Your task to perform on an android device: toggle data saver in the chrome app Image 0: 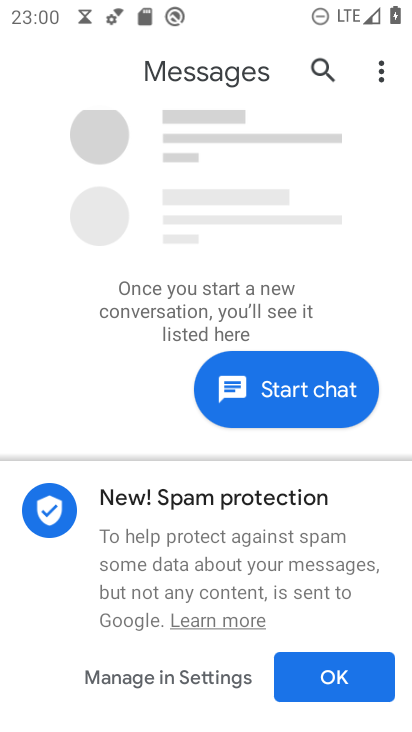
Step 0: press home button
Your task to perform on an android device: toggle data saver in the chrome app Image 1: 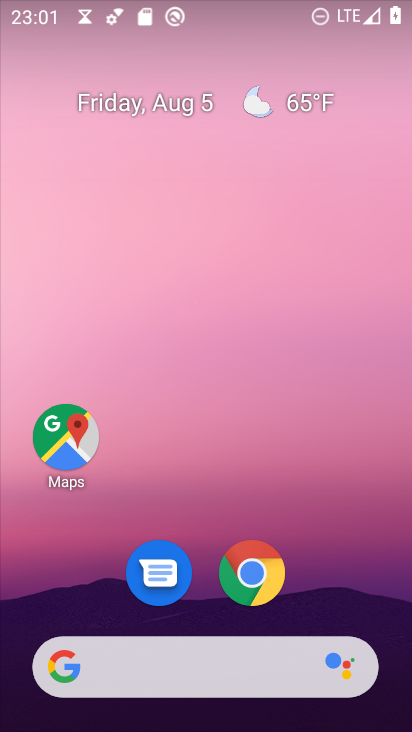
Step 1: click (256, 574)
Your task to perform on an android device: toggle data saver in the chrome app Image 2: 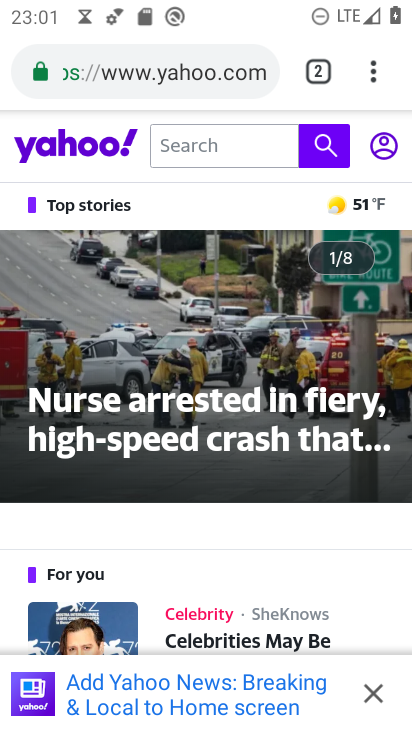
Step 2: click (375, 72)
Your task to perform on an android device: toggle data saver in the chrome app Image 3: 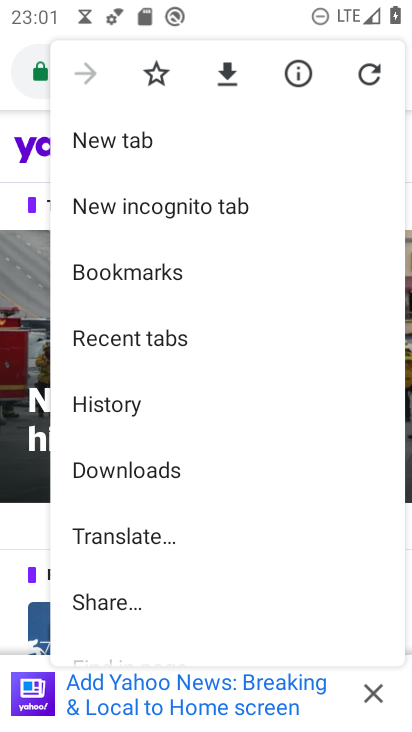
Step 3: drag from (177, 482) to (255, 381)
Your task to perform on an android device: toggle data saver in the chrome app Image 4: 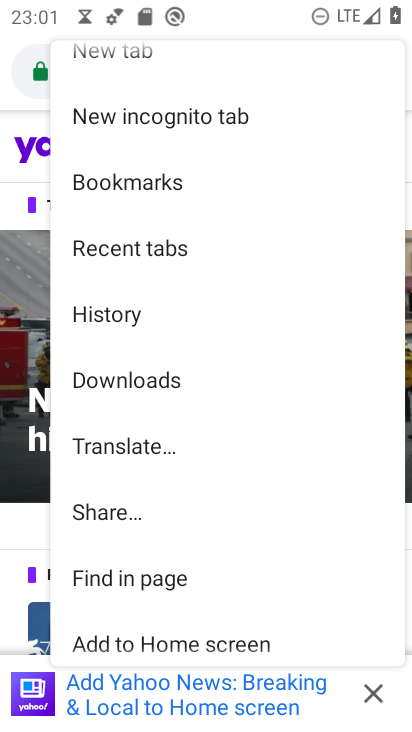
Step 4: drag from (175, 487) to (233, 404)
Your task to perform on an android device: toggle data saver in the chrome app Image 5: 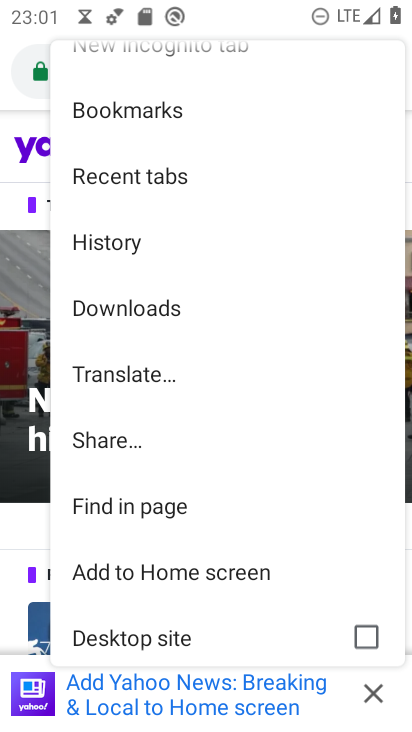
Step 5: drag from (156, 530) to (232, 401)
Your task to perform on an android device: toggle data saver in the chrome app Image 6: 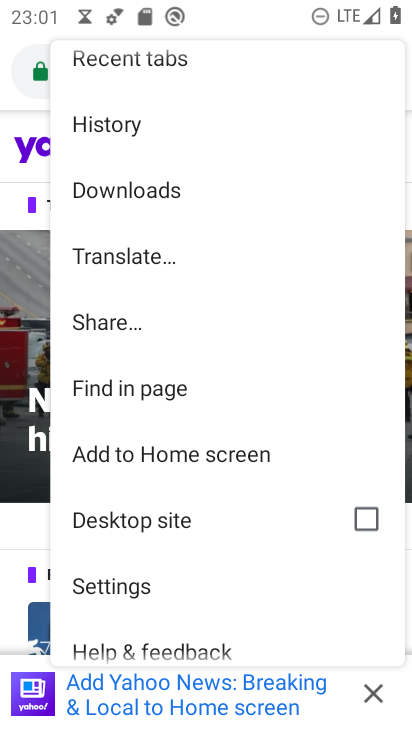
Step 6: drag from (175, 553) to (260, 438)
Your task to perform on an android device: toggle data saver in the chrome app Image 7: 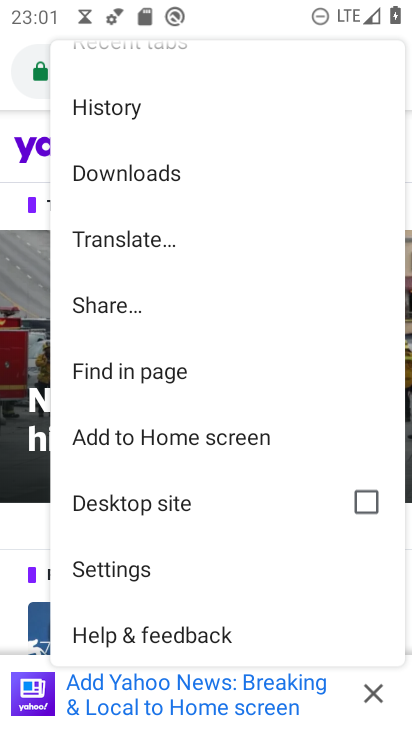
Step 7: drag from (223, 333) to (199, 504)
Your task to perform on an android device: toggle data saver in the chrome app Image 8: 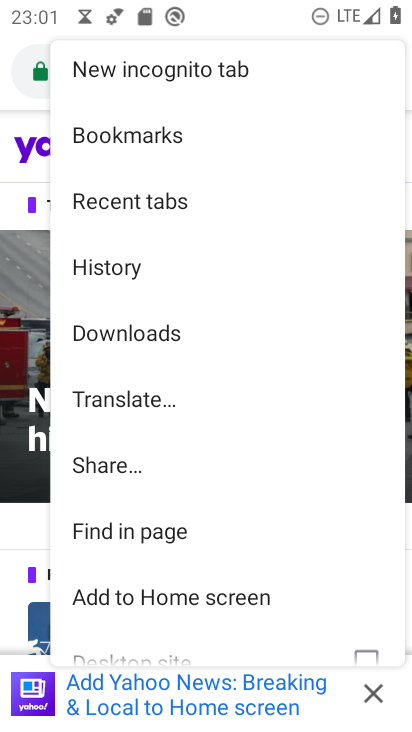
Step 8: drag from (226, 298) to (202, 423)
Your task to perform on an android device: toggle data saver in the chrome app Image 9: 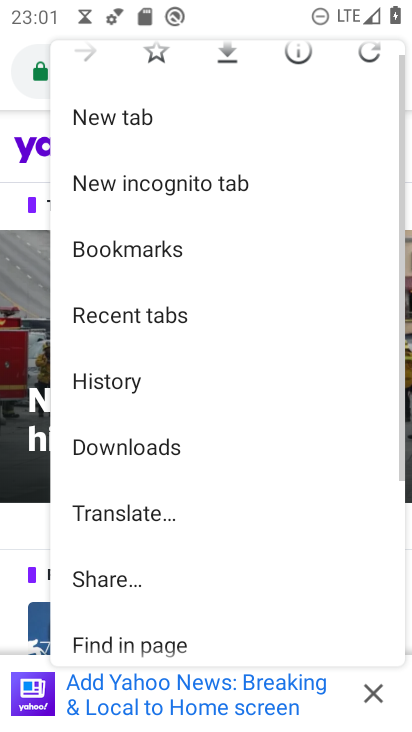
Step 9: drag from (171, 597) to (267, 311)
Your task to perform on an android device: toggle data saver in the chrome app Image 10: 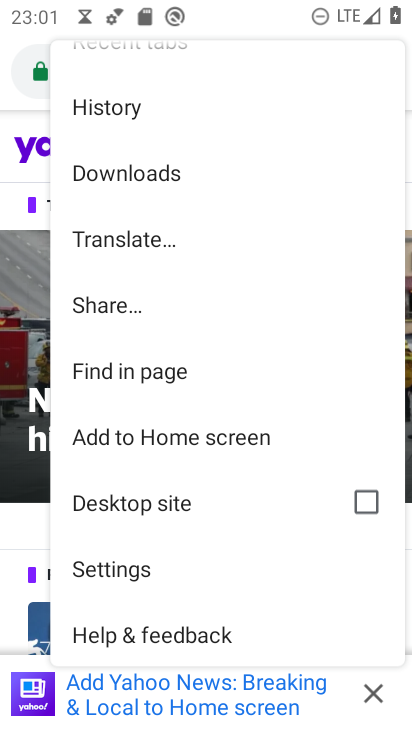
Step 10: click (130, 574)
Your task to perform on an android device: toggle data saver in the chrome app Image 11: 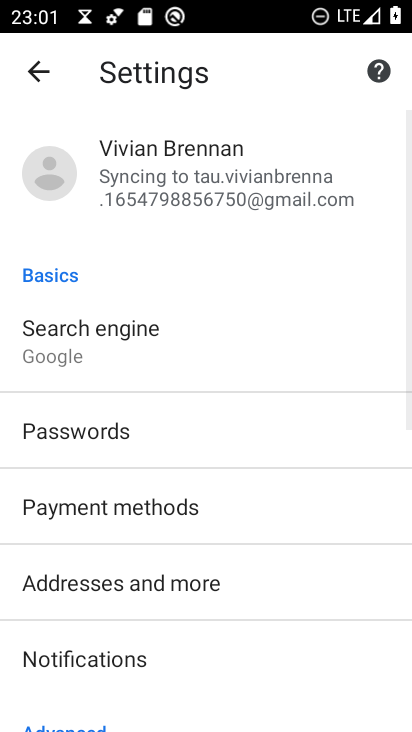
Step 11: drag from (145, 588) to (289, 399)
Your task to perform on an android device: toggle data saver in the chrome app Image 12: 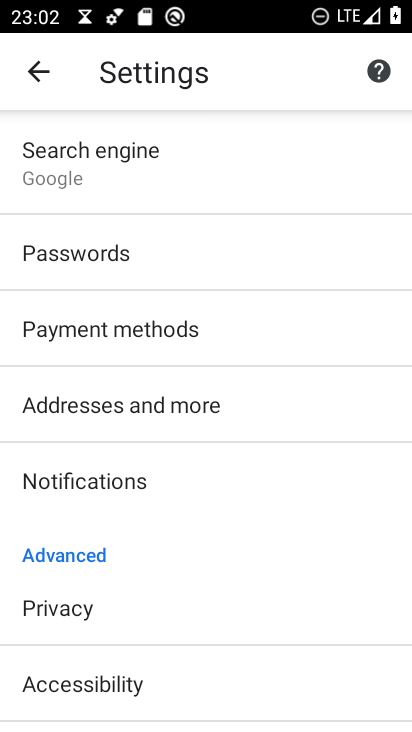
Step 12: drag from (178, 604) to (305, 424)
Your task to perform on an android device: toggle data saver in the chrome app Image 13: 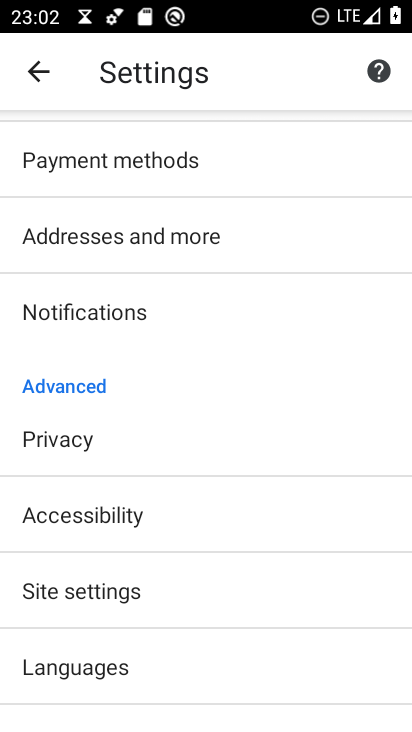
Step 13: drag from (160, 614) to (245, 526)
Your task to perform on an android device: toggle data saver in the chrome app Image 14: 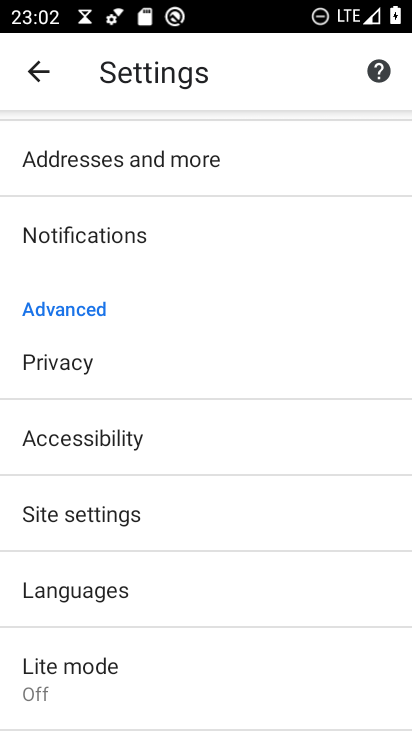
Step 14: drag from (96, 610) to (193, 499)
Your task to perform on an android device: toggle data saver in the chrome app Image 15: 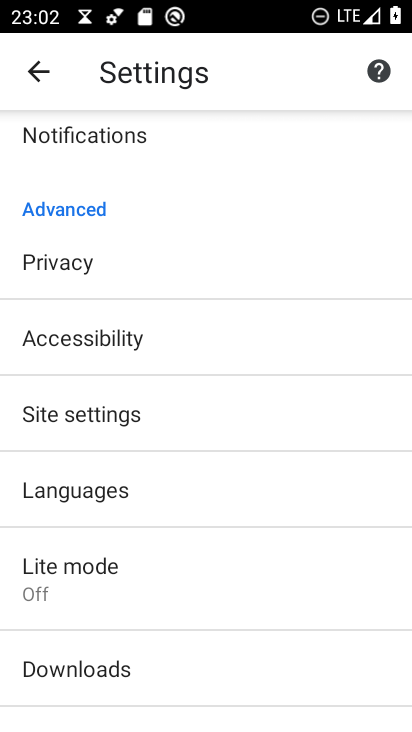
Step 15: click (106, 577)
Your task to perform on an android device: toggle data saver in the chrome app Image 16: 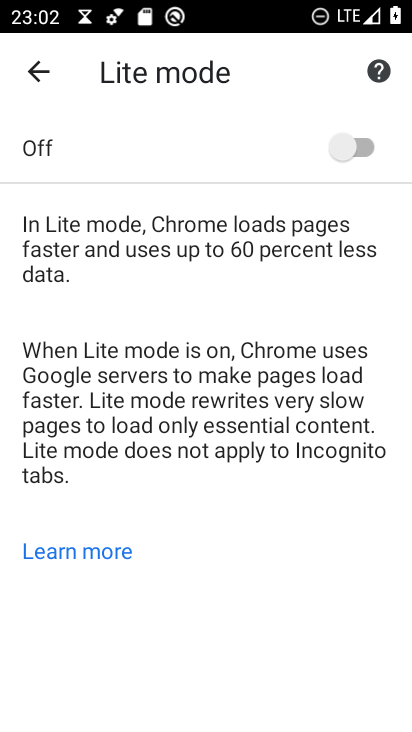
Step 16: click (344, 151)
Your task to perform on an android device: toggle data saver in the chrome app Image 17: 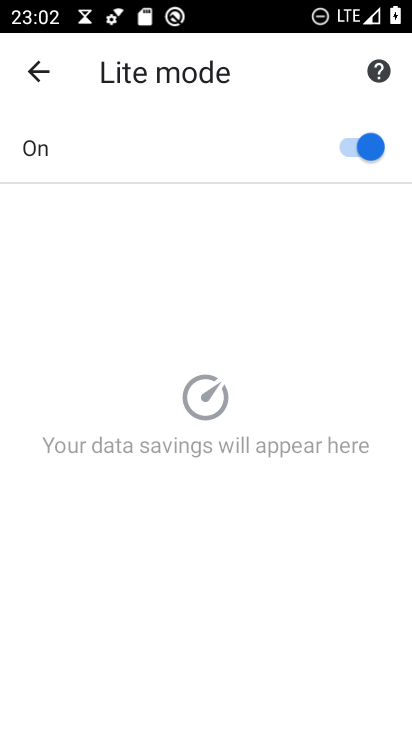
Step 17: task complete